Your task to perform on an android device: Do I have any events this weekend? Image 0: 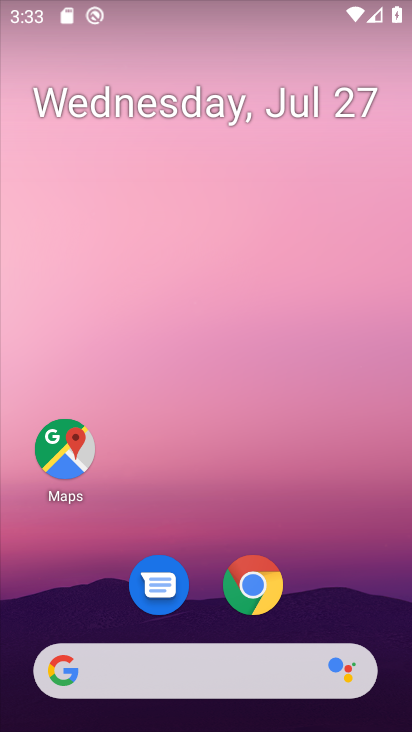
Step 0: drag from (335, 587) to (314, 122)
Your task to perform on an android device: Do I have any events this weekend? Image 1: 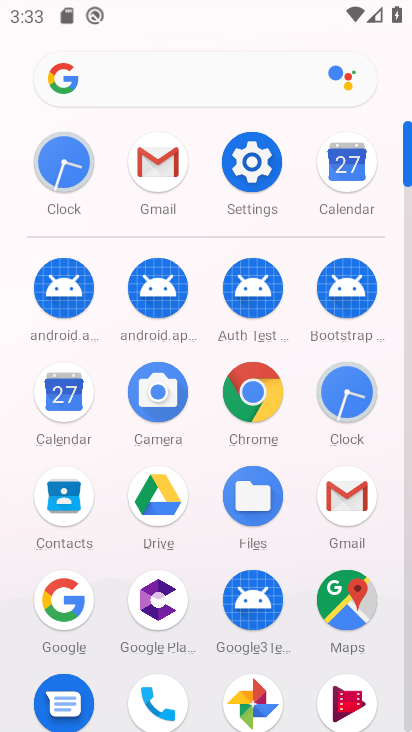
Step 1: click (69, 399)
Your task to perform on an android device: Do I have any events this weekend? Image 2: 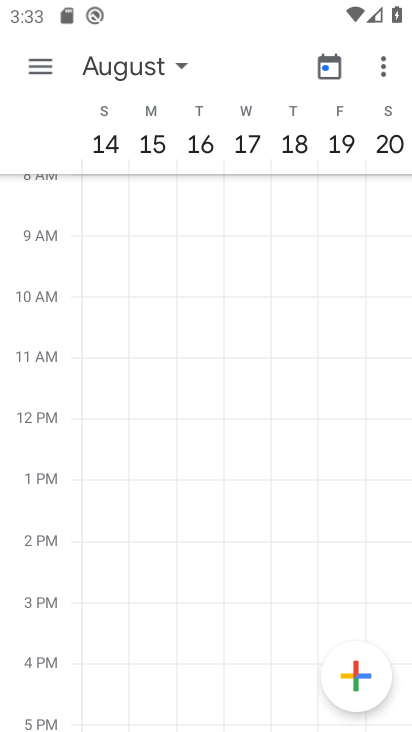
Step 2: task complete